Your task to perform on an android device: Go to sound settings Image 0: 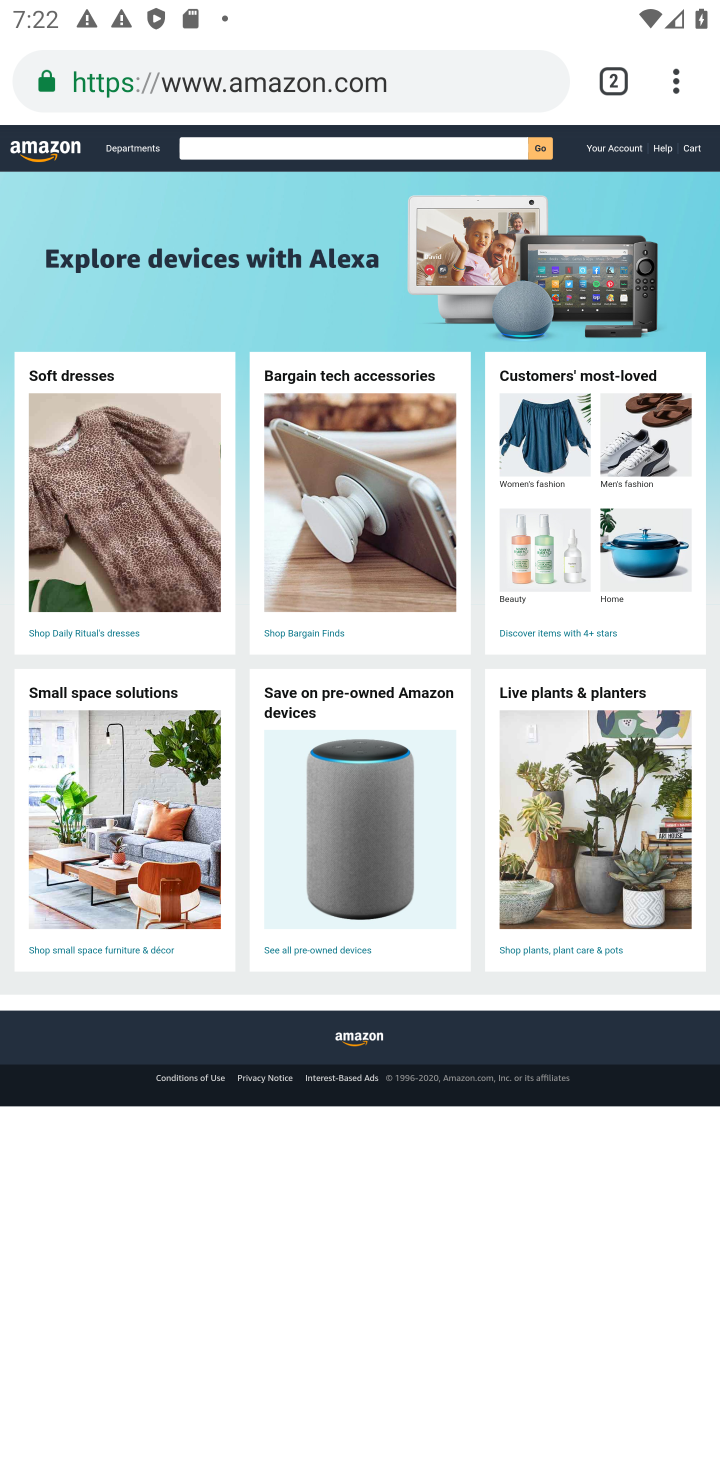
Step 0: press home button
Your task to perform on an android device: Go to sound settings Image 1: 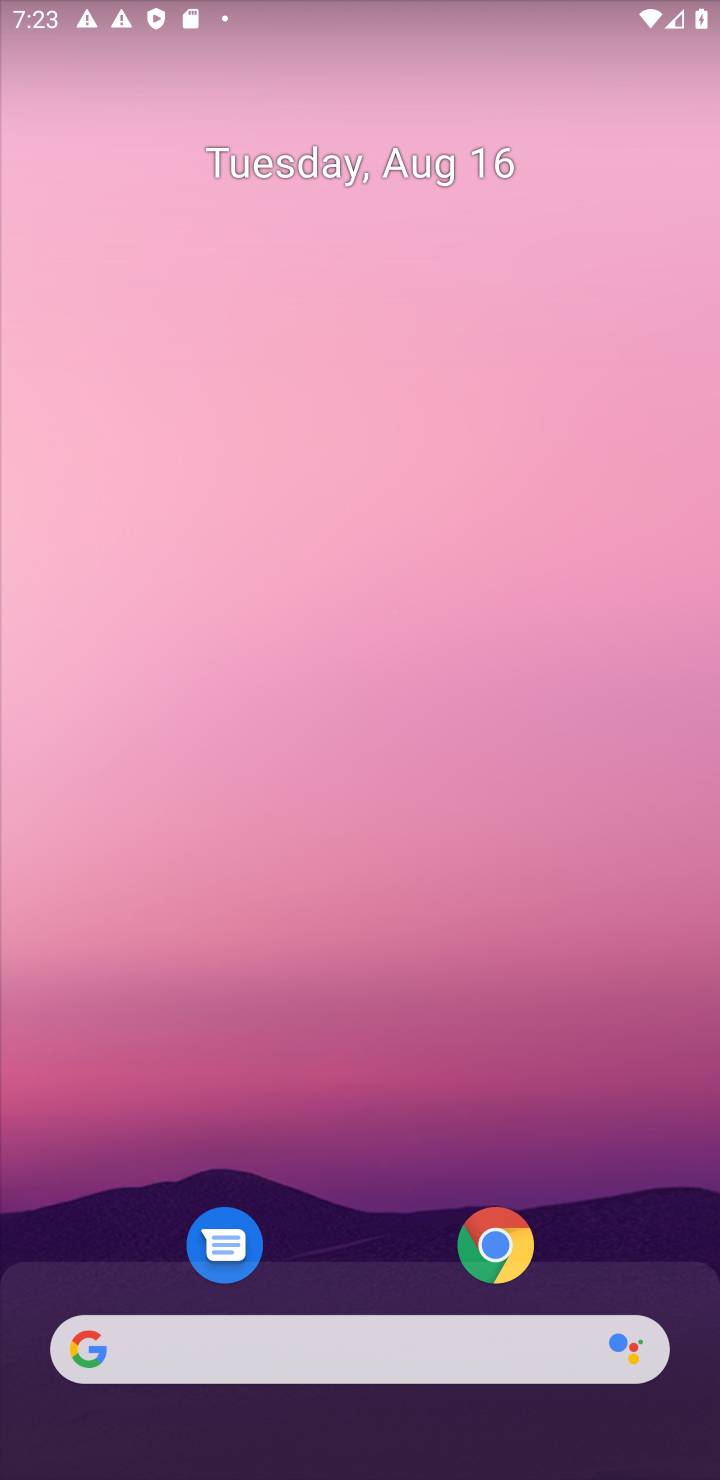
Step 1: drag from (382, 1147) to (471, 231)
Your task to perform on an android device: Go to sound settings Image 2: 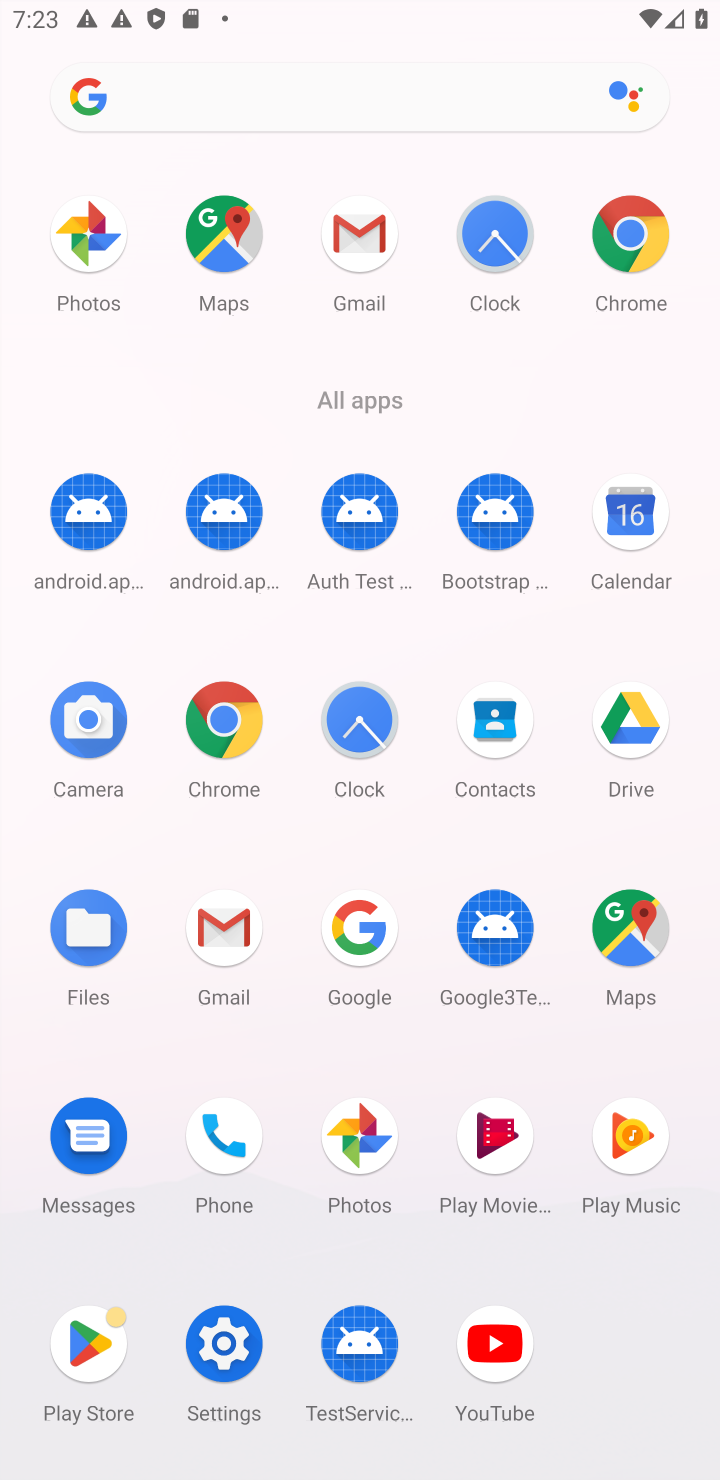
Step 2: click (234, 1337)
Your task to perform on an android device: Go to sound settings Image 3: 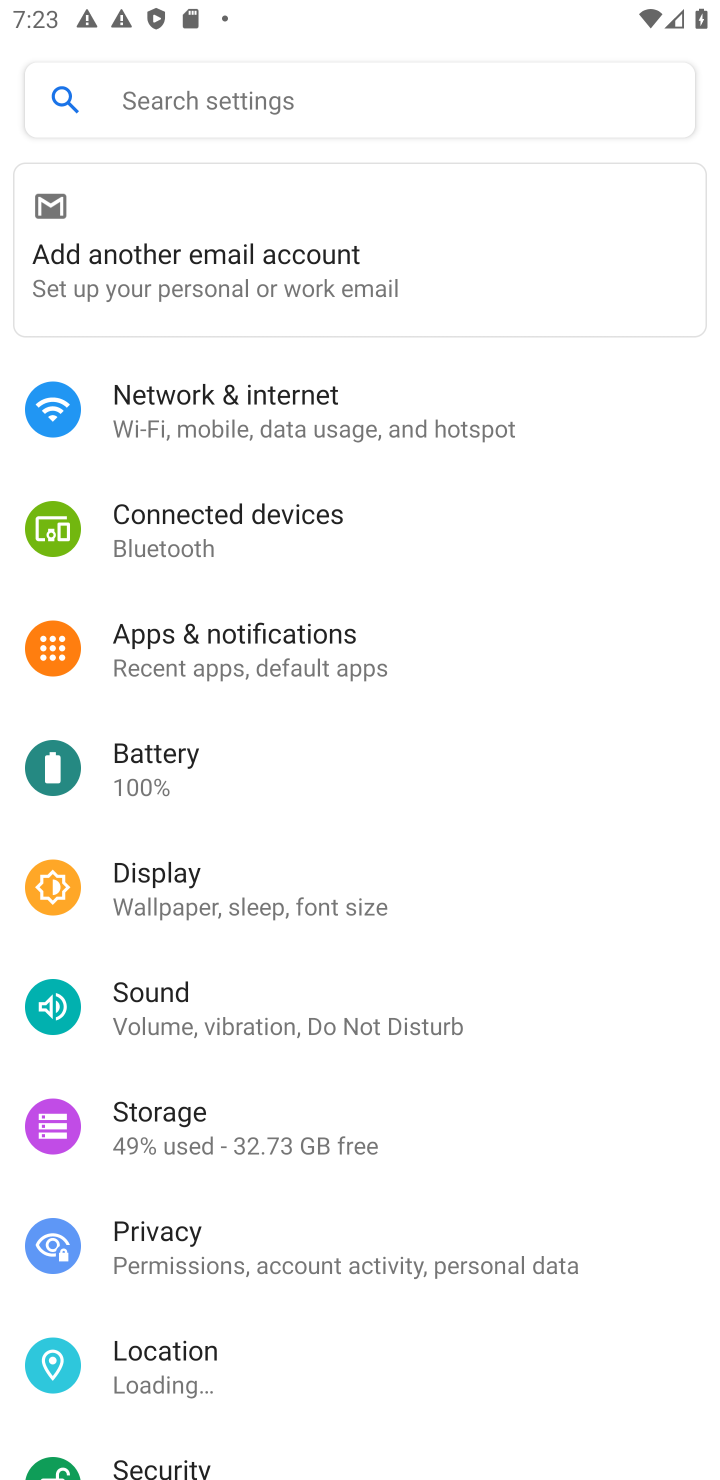
Step 3: click (168, 1020)
Your task to perform on an android device: Go to sound settings Image 4: 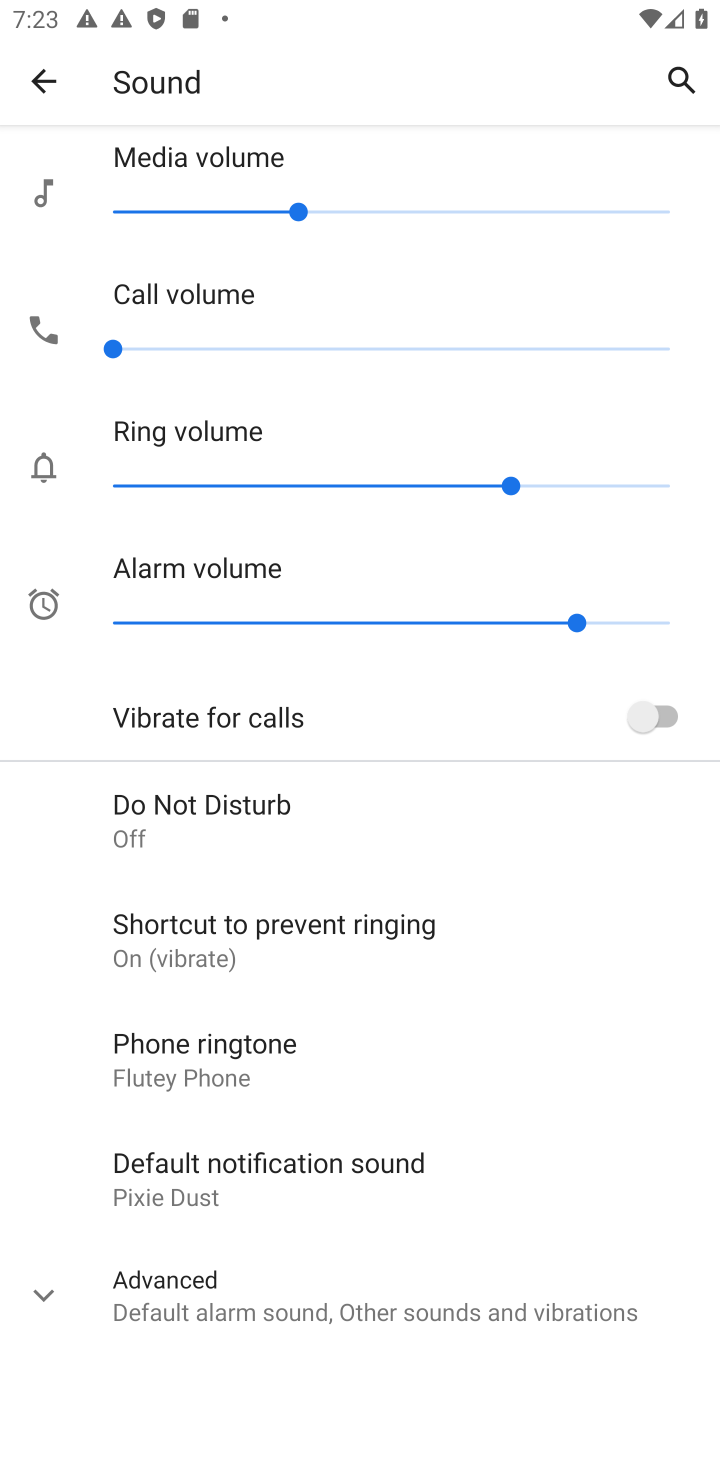
Step 4: task complete